Your task to perform on an android device: What's the weather today? Image 0: 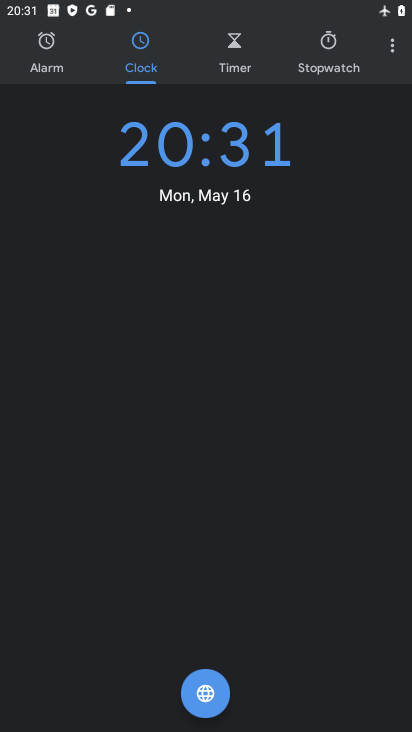
Step 0: press home button
Your task to perform on an android device: What's the weather today? Image 1: 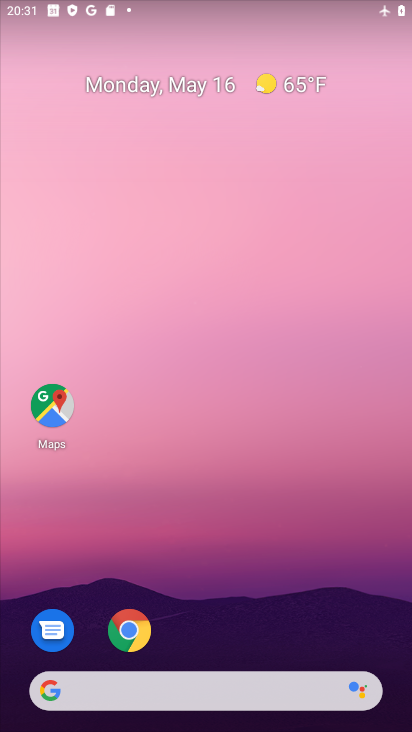
Step 1: drag from (230, 638) to (218, 190)
Your task to perform on an android device: What's the weather today? Image 2: 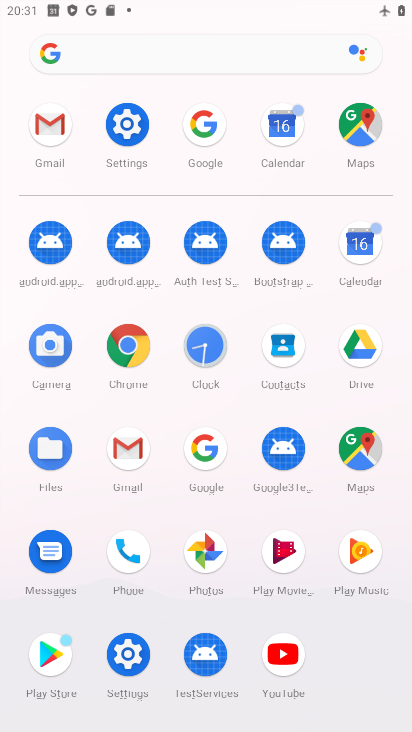
Step 2: click (193, 135)
Your task to perform on an android device: What's the weather today? Image 3: 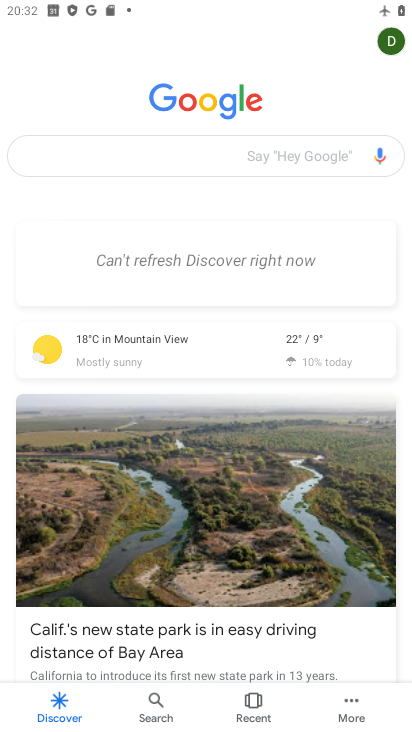
Step 3: click (195, 357)
Your task to perform on an android device: What's the weather today? Image 4: 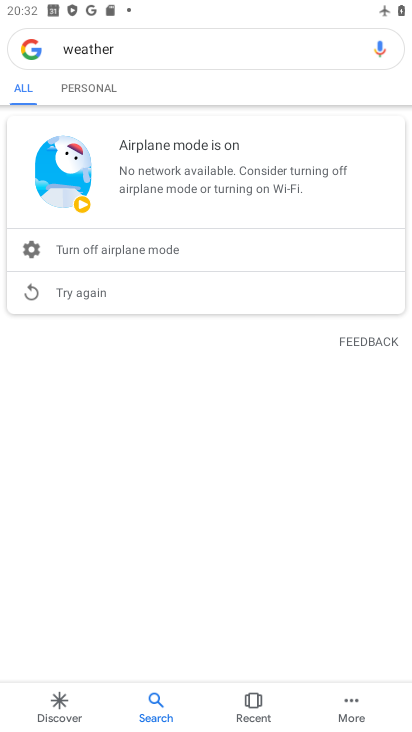
Step 4: task complete